Your task to perform on an android device: Open wifi settings Image 0: 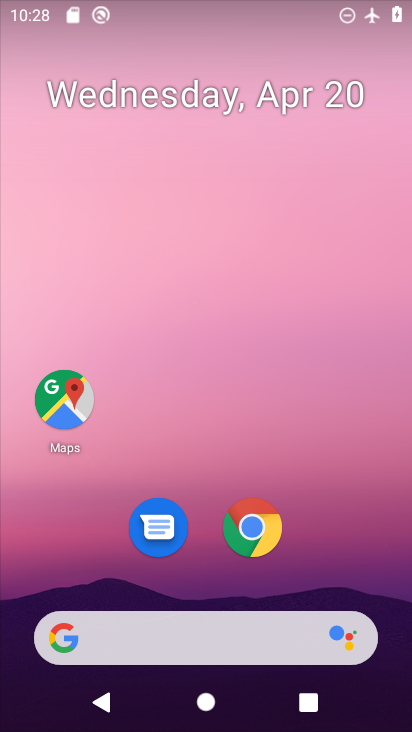
Step 0: drag from (200, 538) to (263, 5)
Your task to perform on an android device: Open wifi settings Image 1: 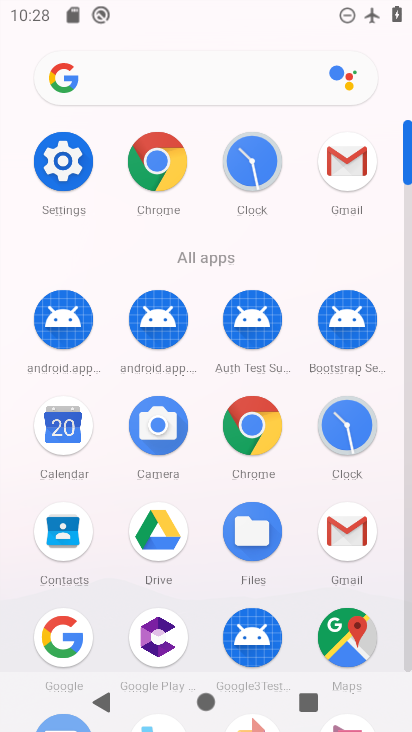
Step 1: click (77, 182)
Your task to perform on an android device: Open wifi settings Image 2: 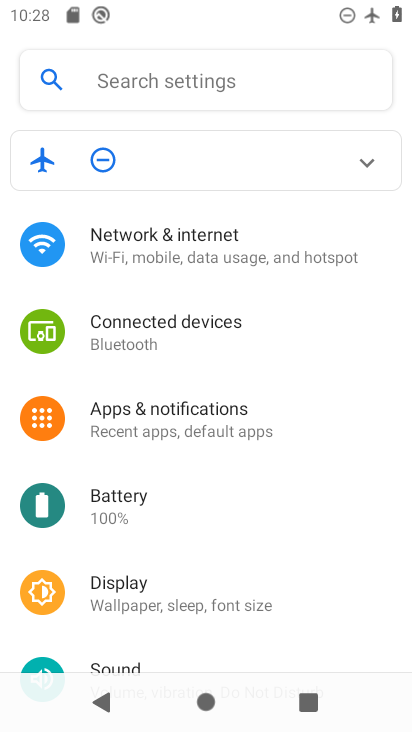
Step 2: click (170, 262)
Your task to perform on an android device: Open wifi settings Image 3: 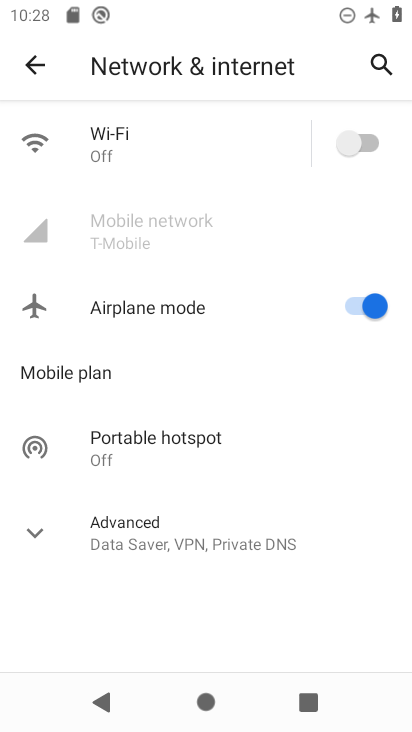
Step 3: click (135, 152)
Your task to perform on an android device: Open wifi settings Image 4: 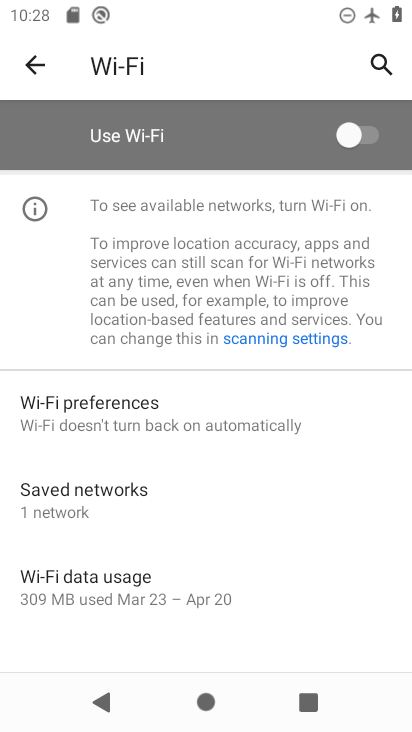
Step 4: task complete